Your task to perform on an android device: Search for the best selling coffee table on Crate & Barrel Image 0: 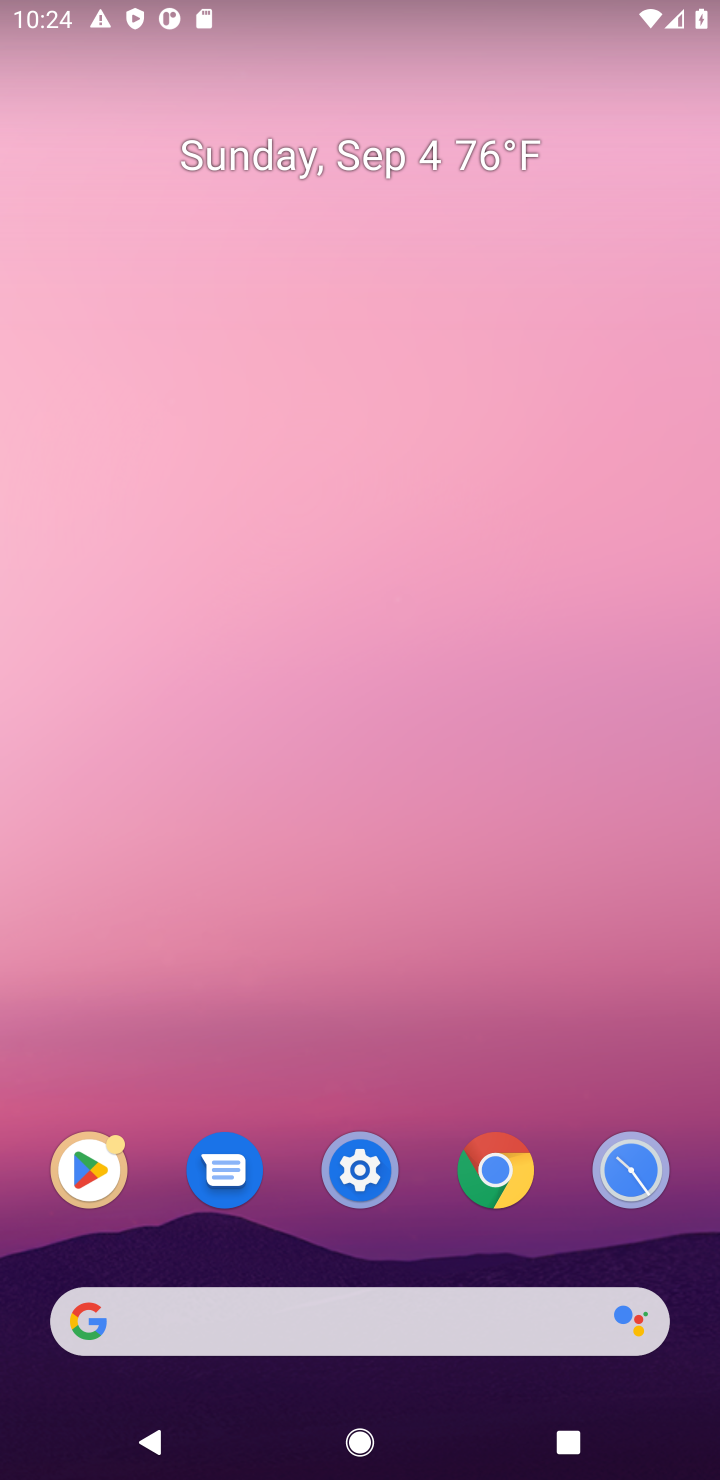
Step 0: click (341, 1330)
Your task to perform on an android device: Search for the best selling coffee table on Crate & Barrel Image 1: 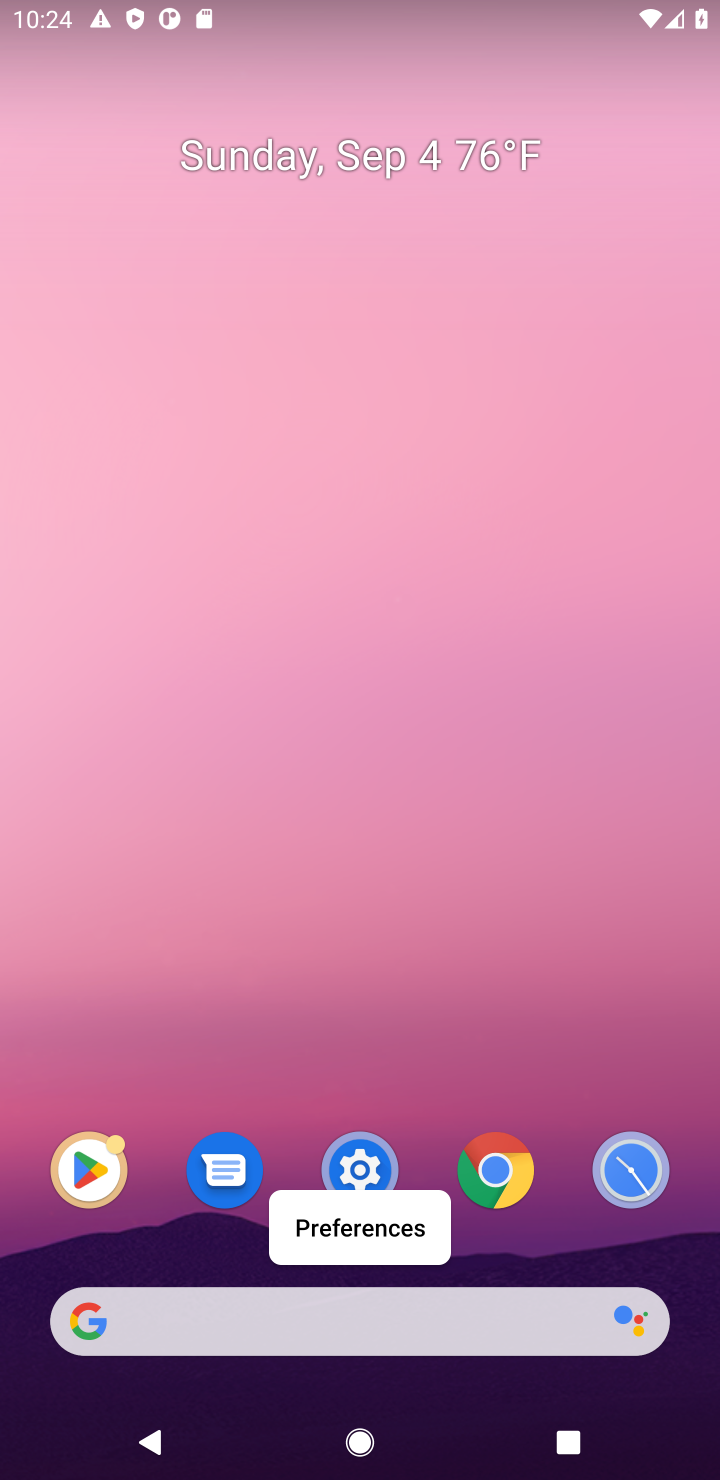
Step 1: click (386, 1319)
Your task to perform on an android device: Search for the best selling coffee table on Crate & Barrel Image 2: 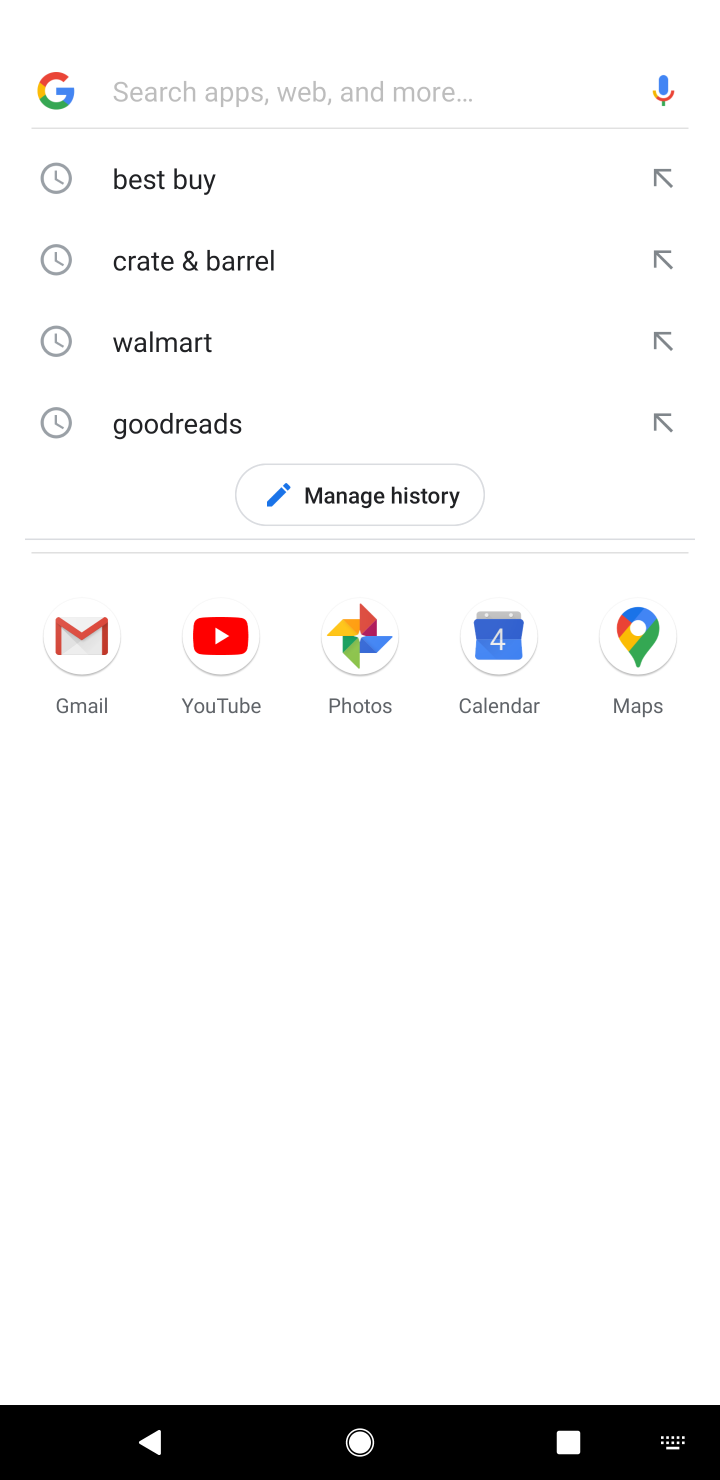
Step 2: click (208, 255)
Your task to perform on an android device: Search for the best selling coffee table on Crate & Barrel Image 3: 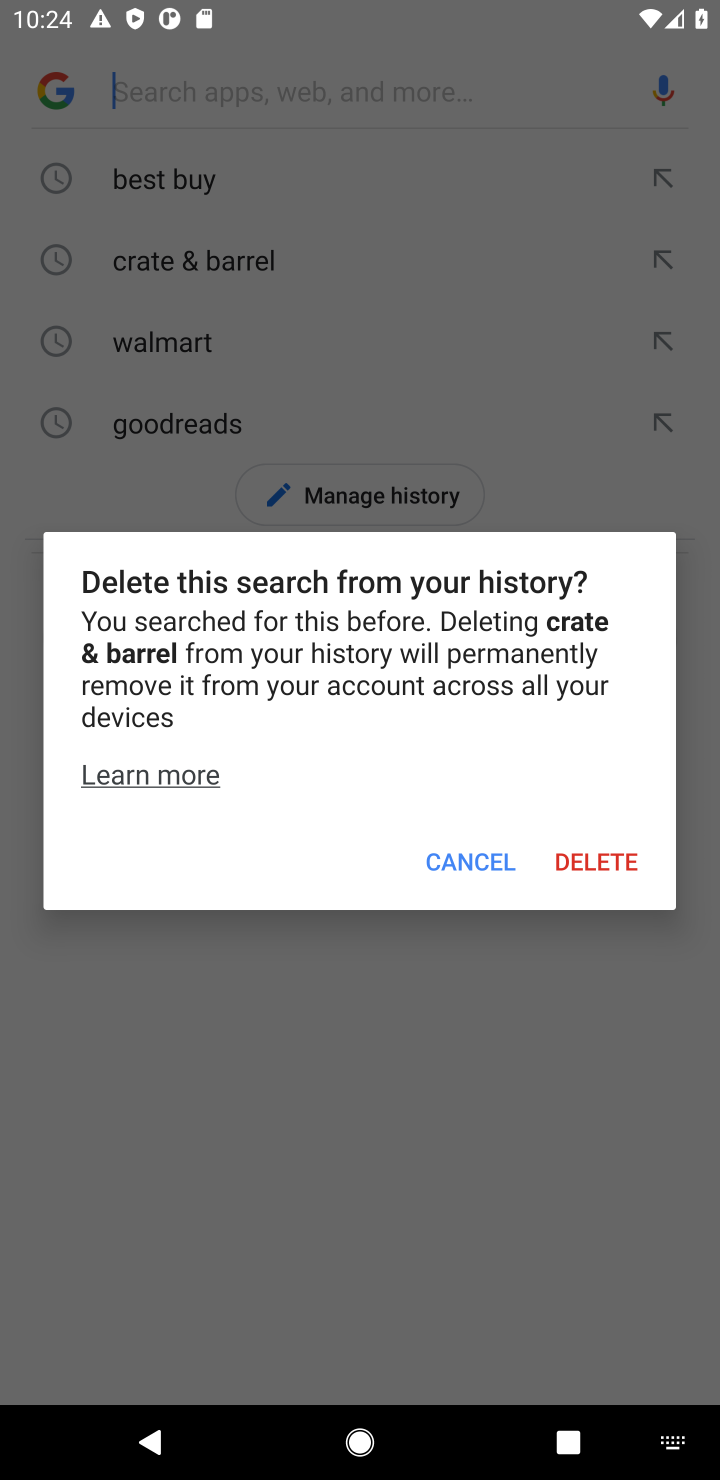
Step 3: click (451, 851)
Your task to perform on an android device: Search for the best selling coffee table on Crate & Barrel Image 4: 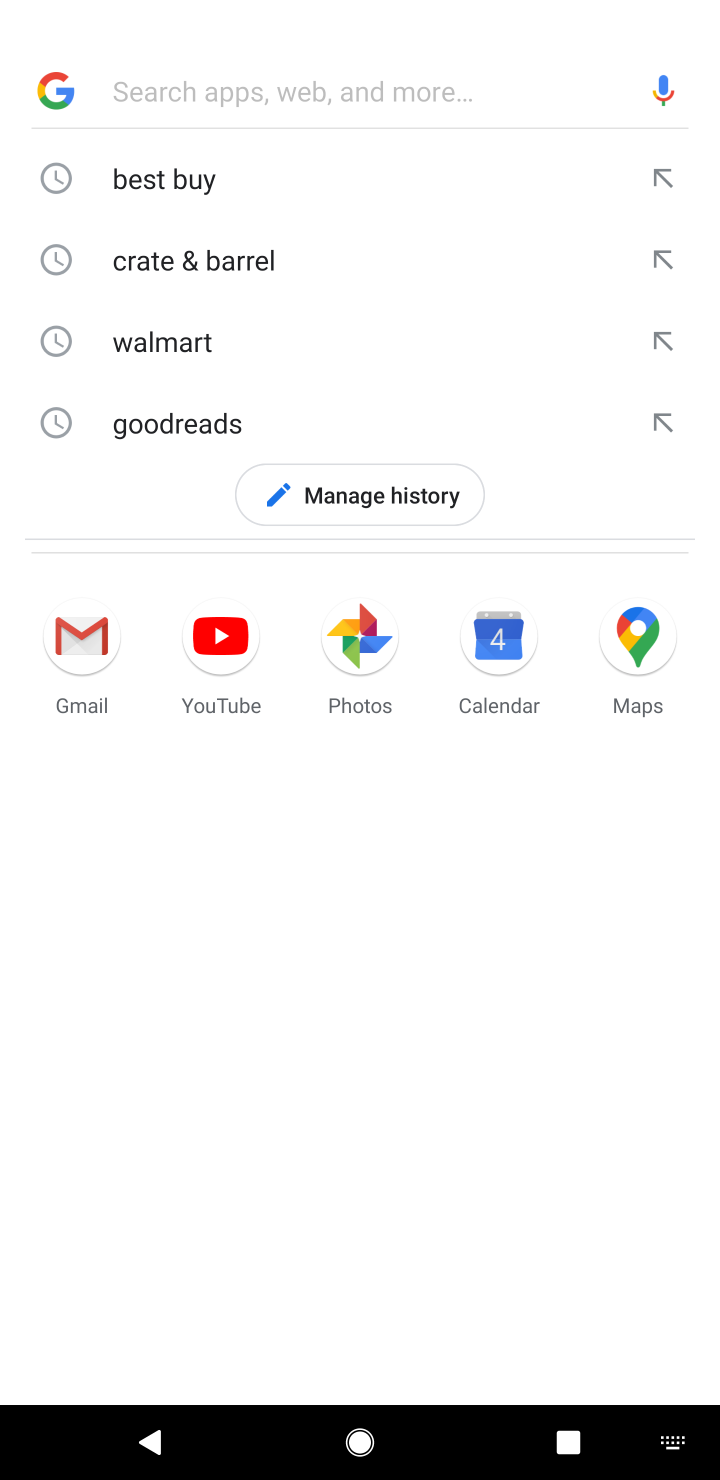
Step 4: click (226, 251)
Your task to perform on an android device: Search for the best selling coffee table on Crate & Barrel Image 5: 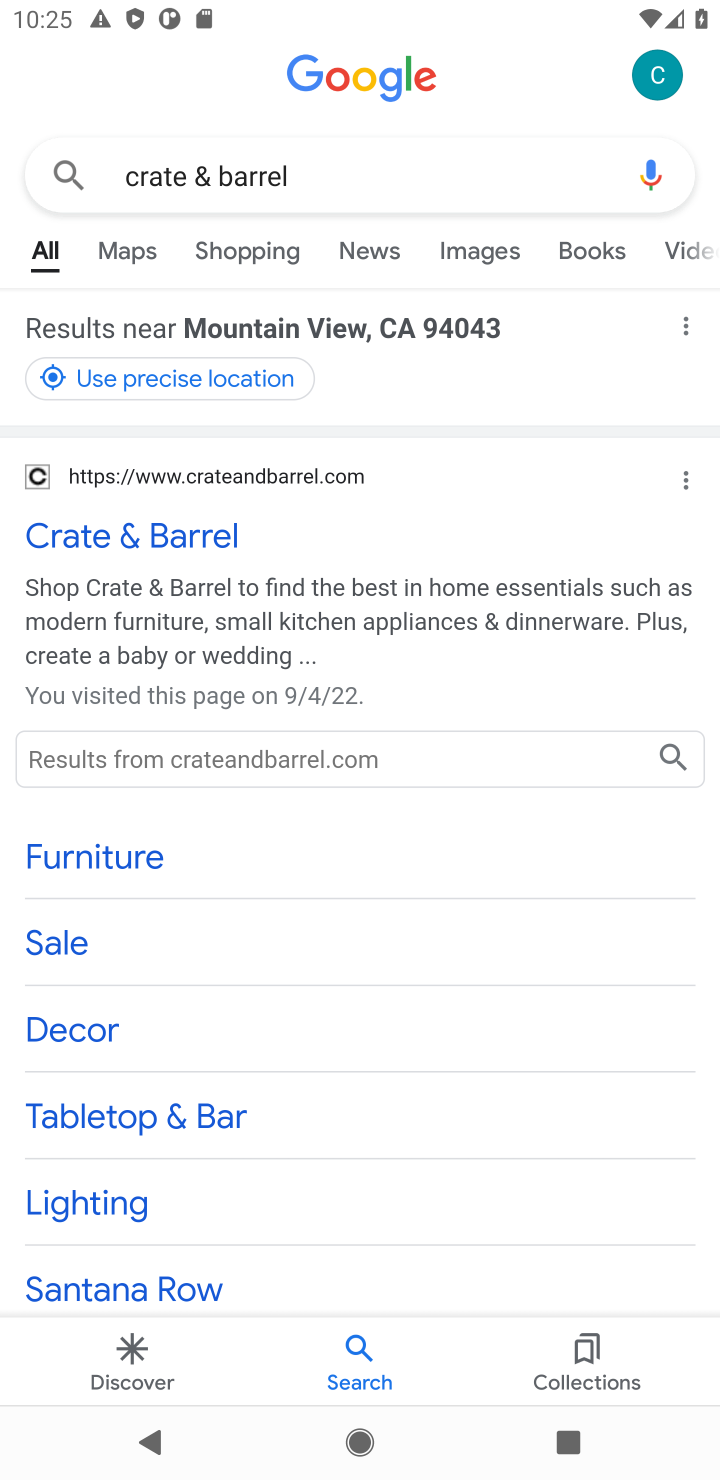
Step 5: click (162, 506)
Your task to perform on an android device: Search for the best selling coffee table on Crate & Barrel Image 6: 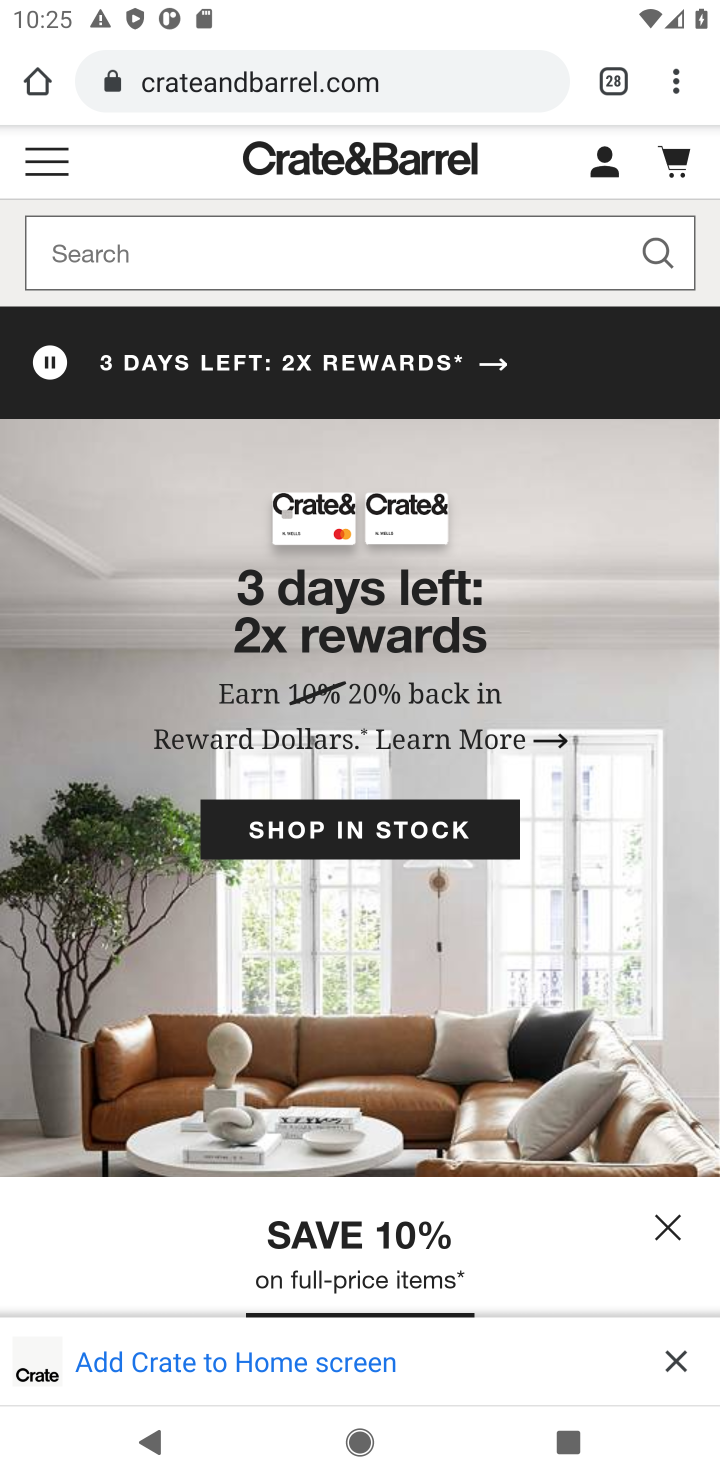
Step 6: click (155, 233)
Your task to perform on an android device: Search for the best selling coffee table on Crate & Barrel Image 7: 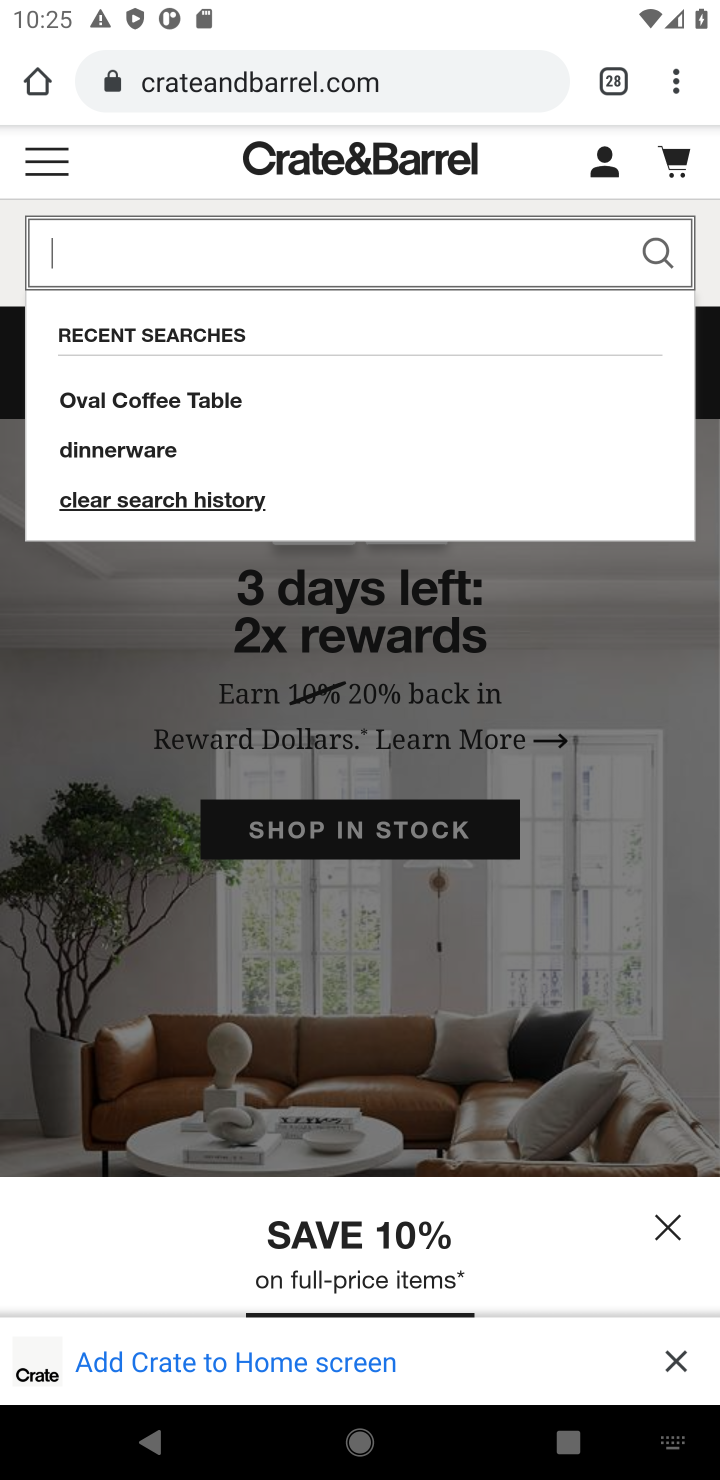
Step 7: type "coffee table"
Your task to perform on an android device: Search for the best selling coffee table on Crate & Barrel Image 8: 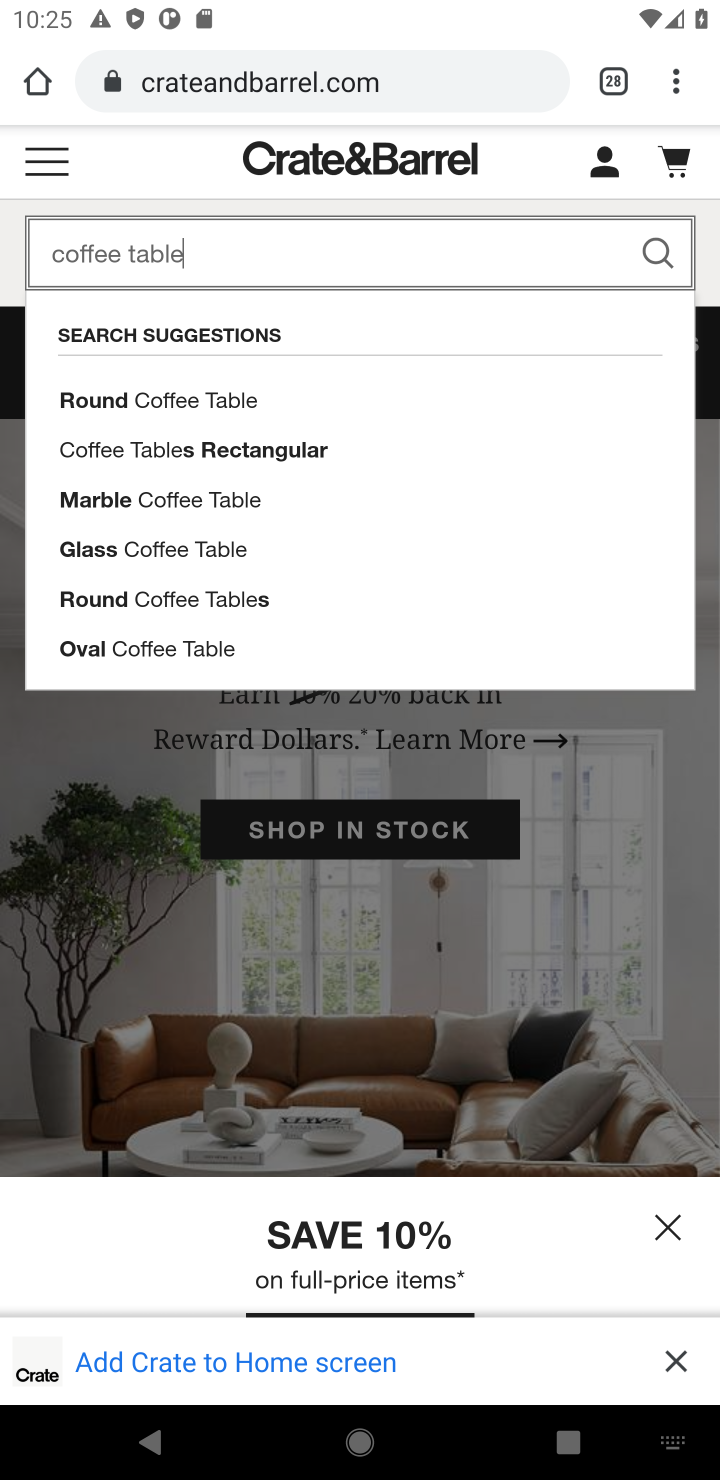
Step 8: click (661, 254)
Your task to perform on an android device: Search for the best selling coffee table on Crate & Barrel Image 9: 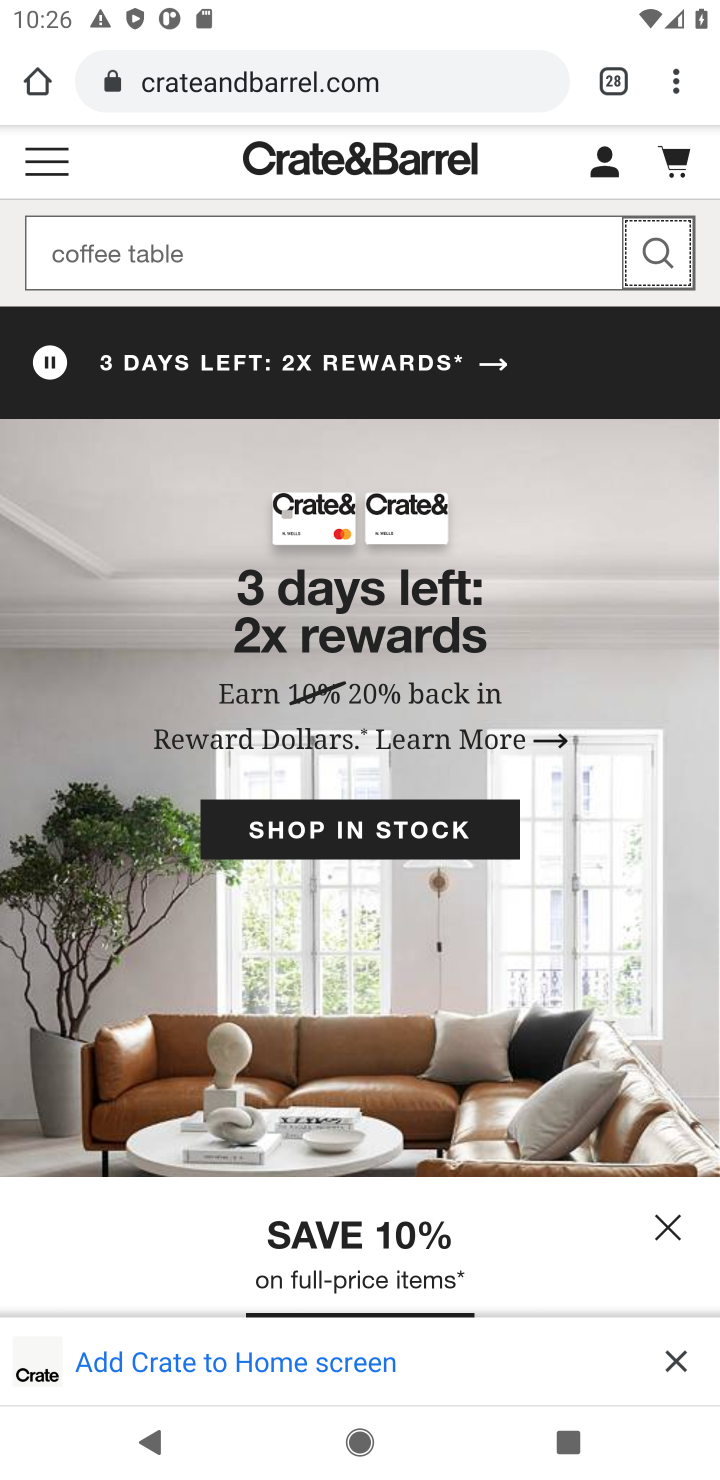
Step 9: click (260, 427)
Your task to perform on an android device: Search for the best selling coffee table on Crate & Barrel Image 10: 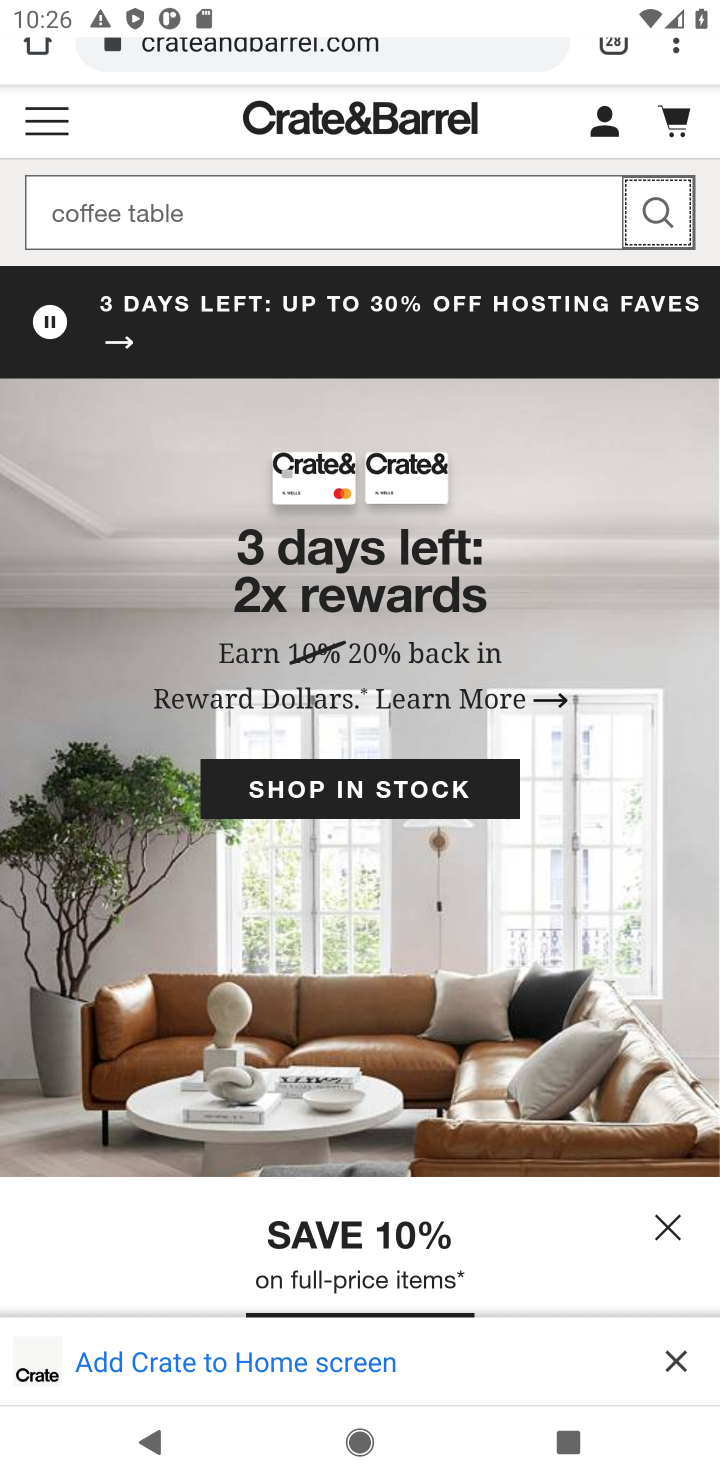
Step 10: click (298, 339)
Your task to perform on an android device: Search for the best selling coffee table on Crate & Barrel Image 11: 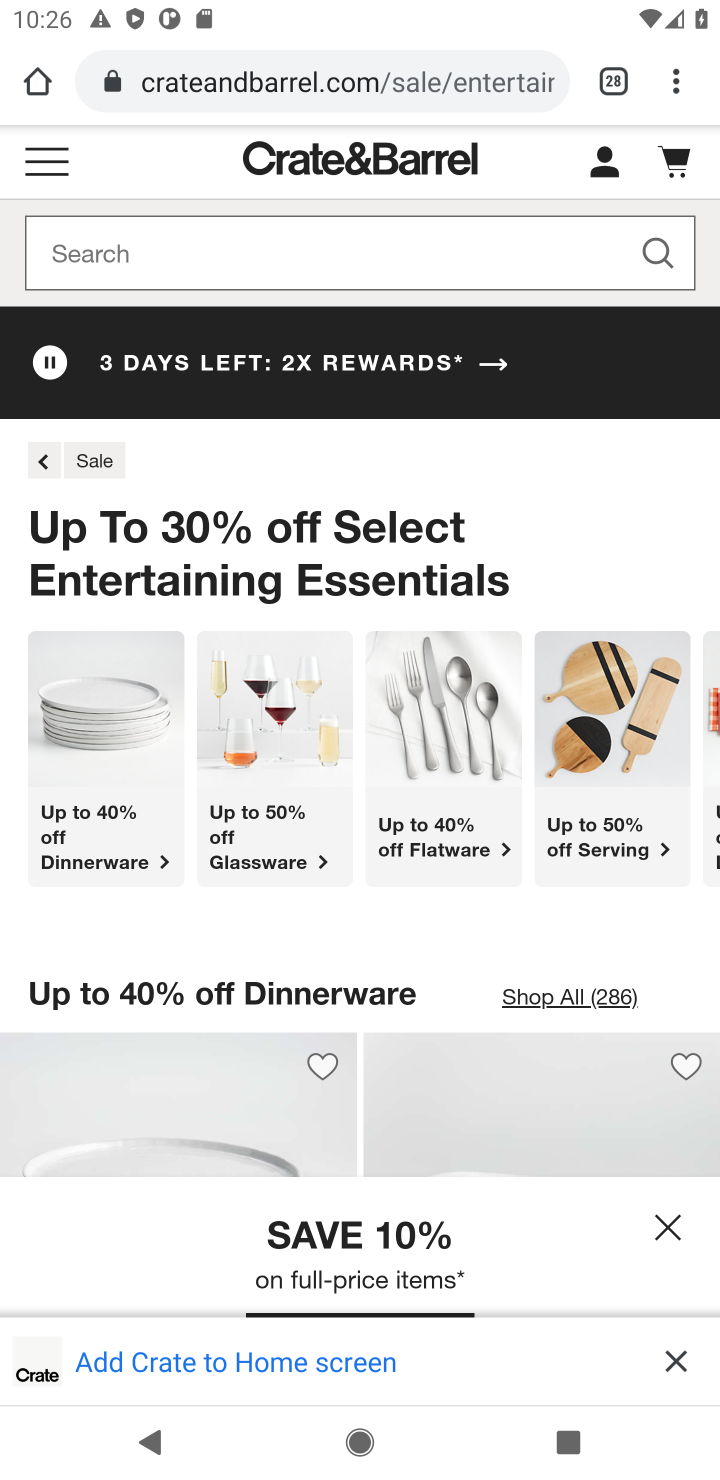
Step 11: task complete